Your task to perform on an android device: Open display settings Image 0: 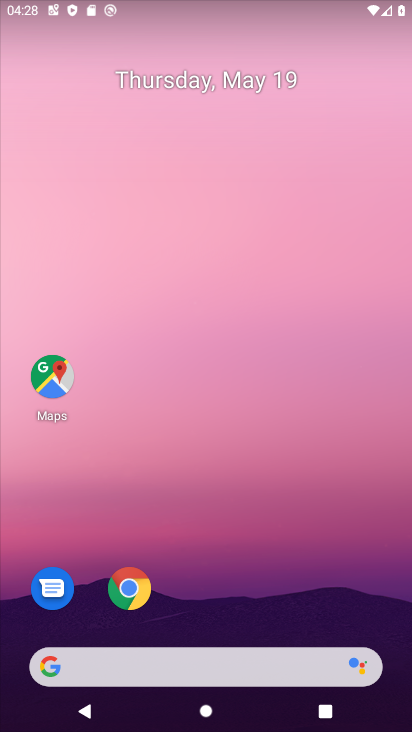
Step 0: drag from (216, 615) to (251, 16)
Your task to perform on an android device: Open display settings Image 1: 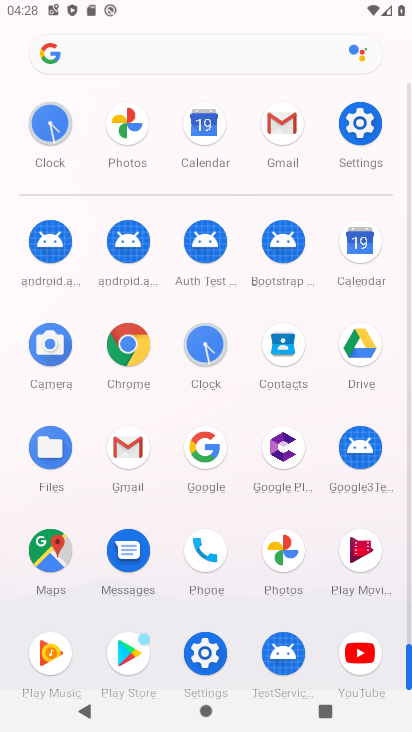
Step 1: click (208, 653)
Your task to perform on an android device: Open display settings Image 2: 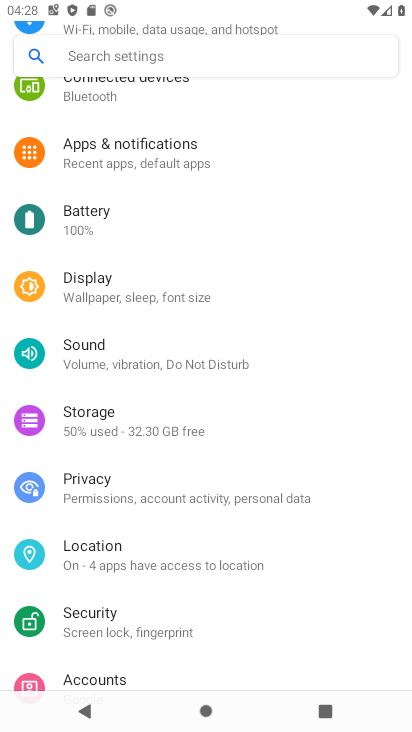
Step 2: click (117, 289)
Your task to perform on an android device: Open display settings Image 3: 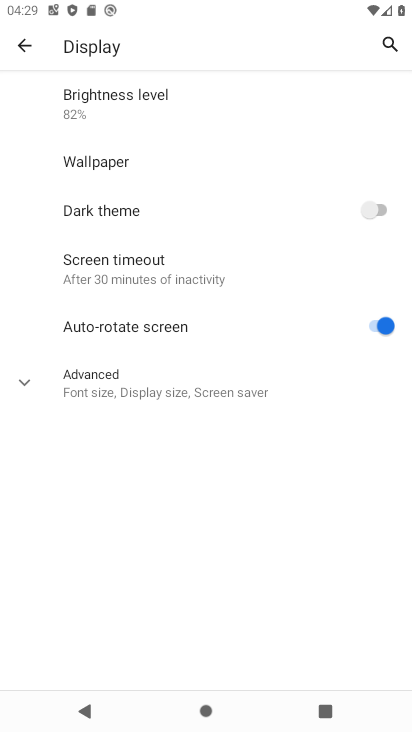
Step 3: task complete